Your task to perform on an android device: Go to Google maps Image 0: 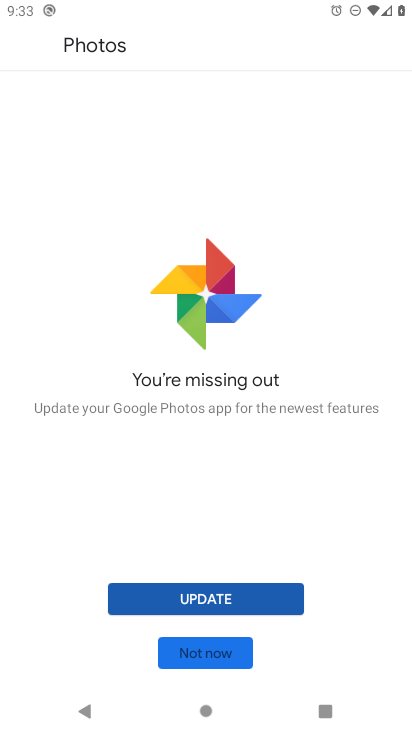
Step 0: press home button
Your task to perform on an android device: Go to Google maps Image 1: 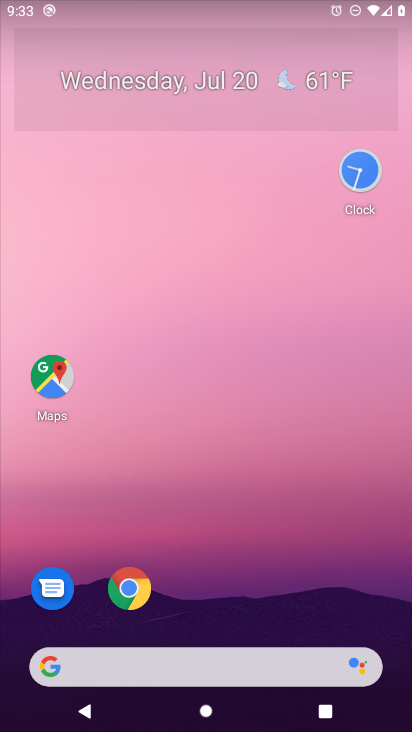
Step 1: click (57, 384)
Your task to perform on an android device: Go to Google maps Image 2: 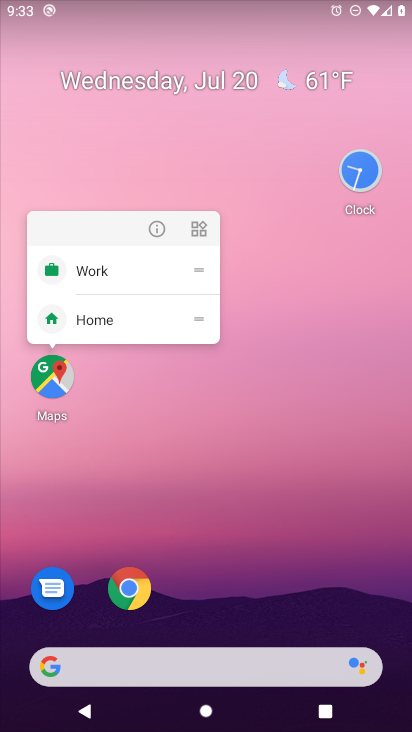
Step 2: click (60, 391)
Your task to perform on an android device: Go to Google maps Image 3: 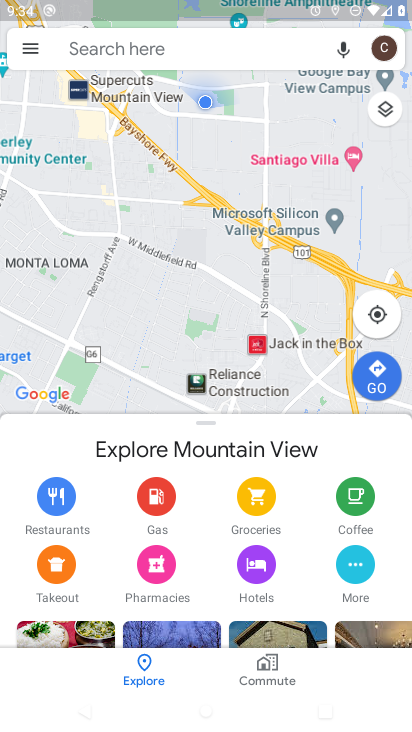
Step 3: task complete